Your task to perform on an android device: Open network settings Image 0: 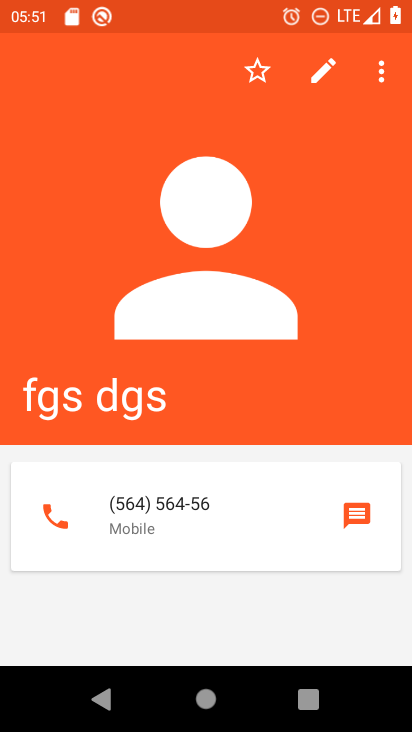
Step 0: press home button
Your task to perform on an android device: Open network settings Image 1: 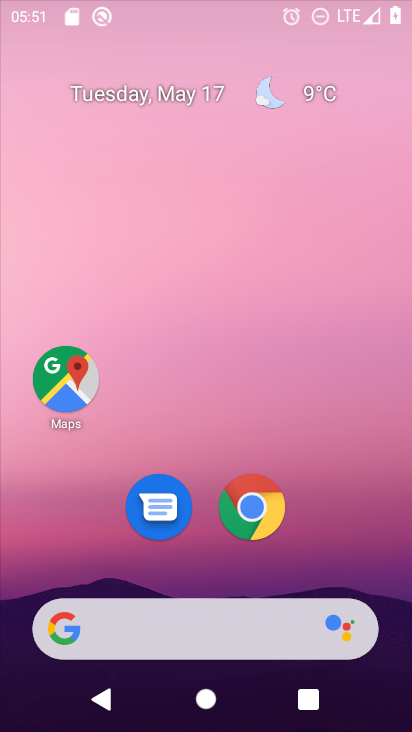
Step 1: drag from (312, 507) to (244, 35)
Your task to perform on an android device: Open network settings Image 2: 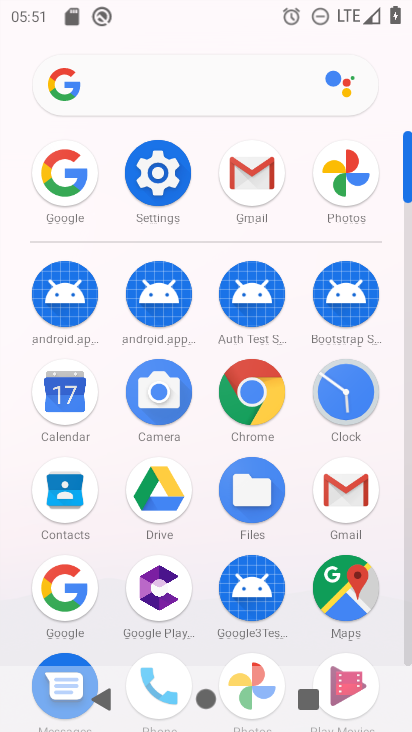
Step 2: click (144, 225)
Your task to perform on an android device: Open network settings Image 3: 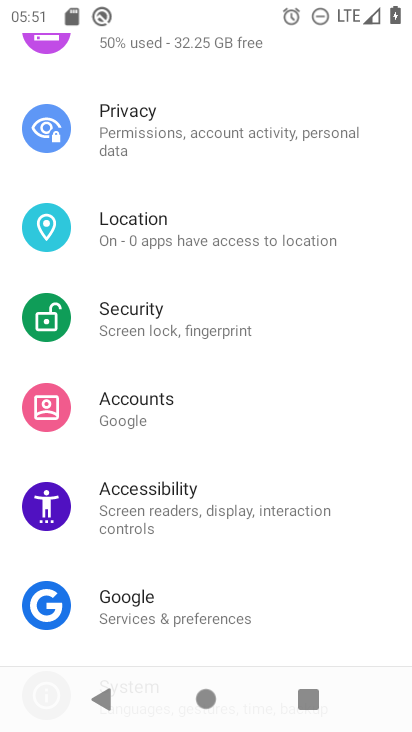
Step 3: drag from (243, 132) to (256, 588)
Your task to perform on an android device: Open network settings Image 4: 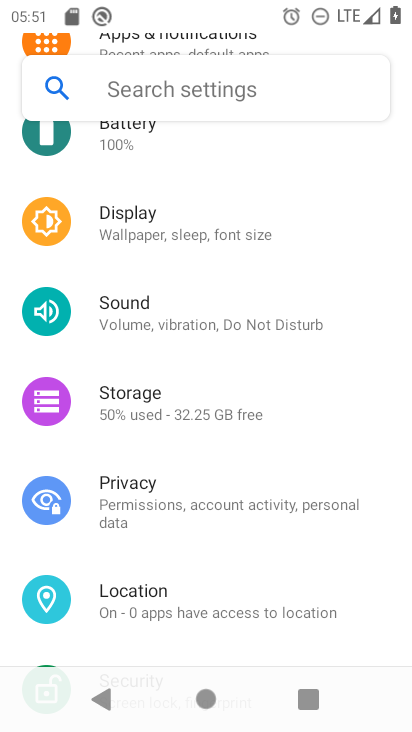
Step 4: drag from (242, 207) to (243, 656)
Your task to perform on an android device: Open network settings Image 5: 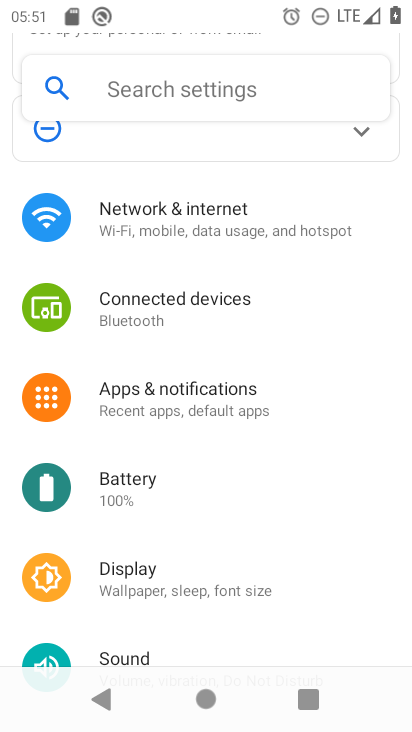
Step 5: click (237, 234)
Your task to perform on an android device: Open network settings Image 6: 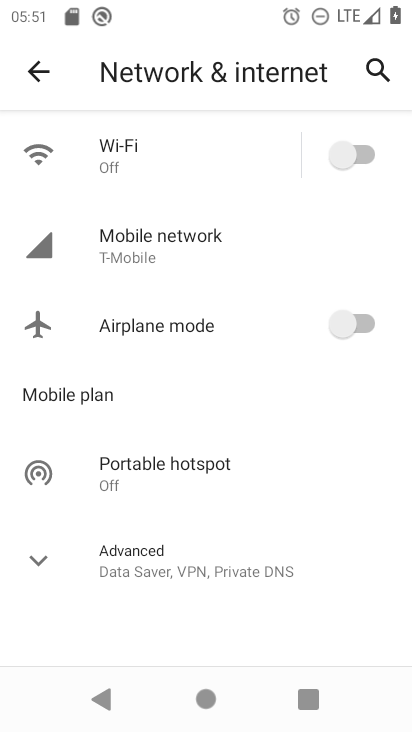
Step 6: task complete